Your task to perform on an android device: What is the news today? Image 0: 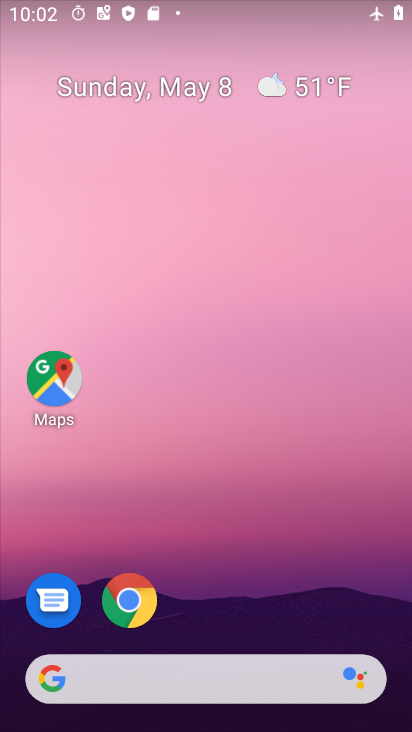
Step 0: drag from (237, 594) to (181, 39)
Your task to perform on an android device: What is the news today? Image 1: 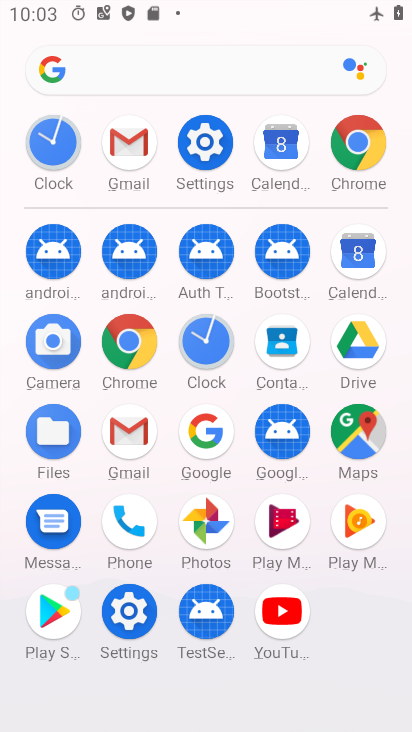
Step 1: drag from (8, 563) to (18, 287)
Your task to perform on an android device: What is the news today? Image 2: 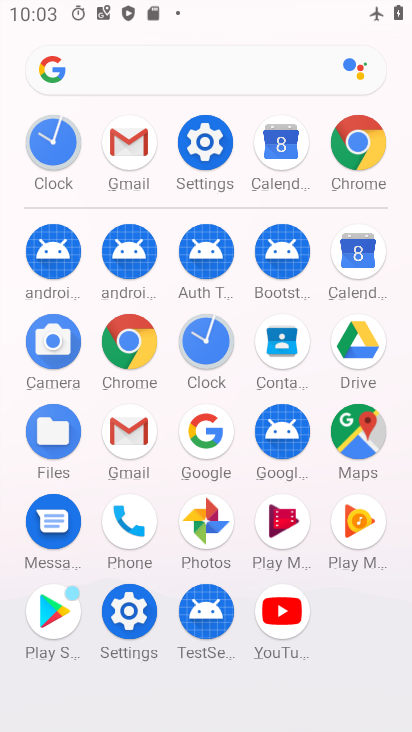
Step 2: click (129, 342)
Your task to perform on an android device: What is the news today? Image 3: 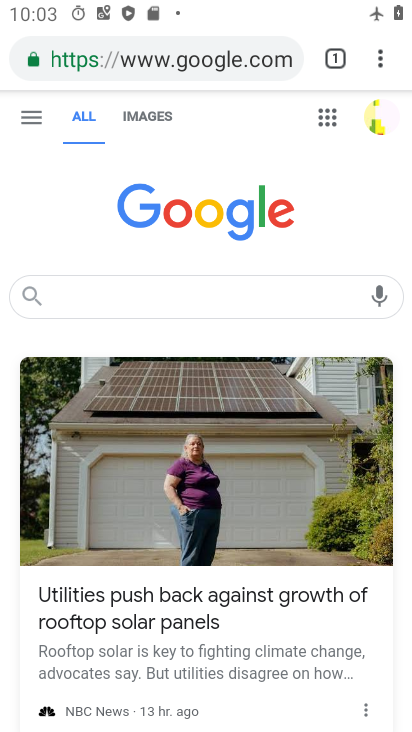
Step 3: task complete